Your task to perform on an android device: Open settings Image 0: 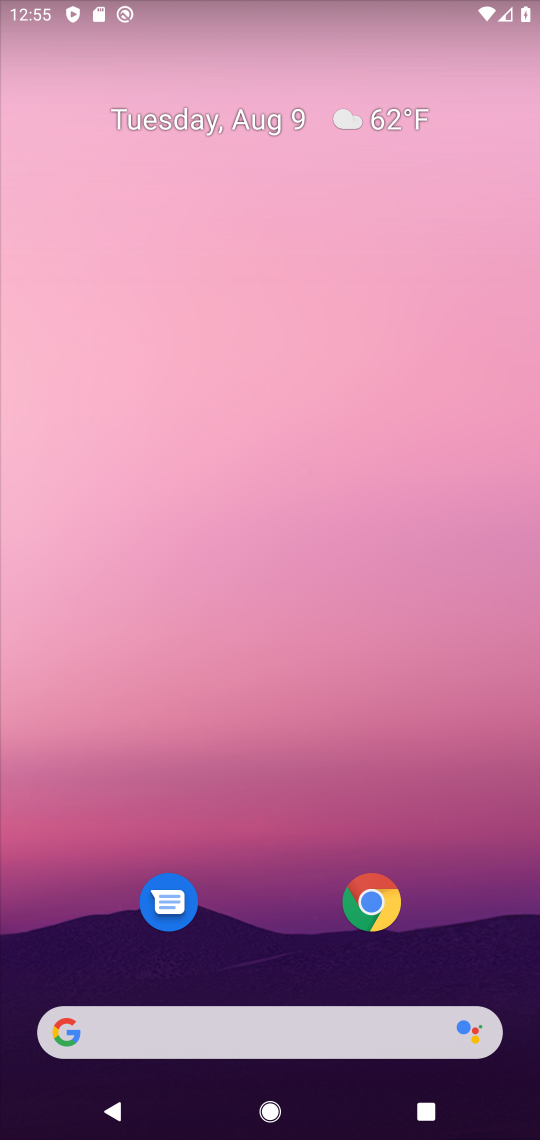
Step 0: drag from (293, 1017) to (320, 430)
Your task to perform on an android device: Open settings Image 1: 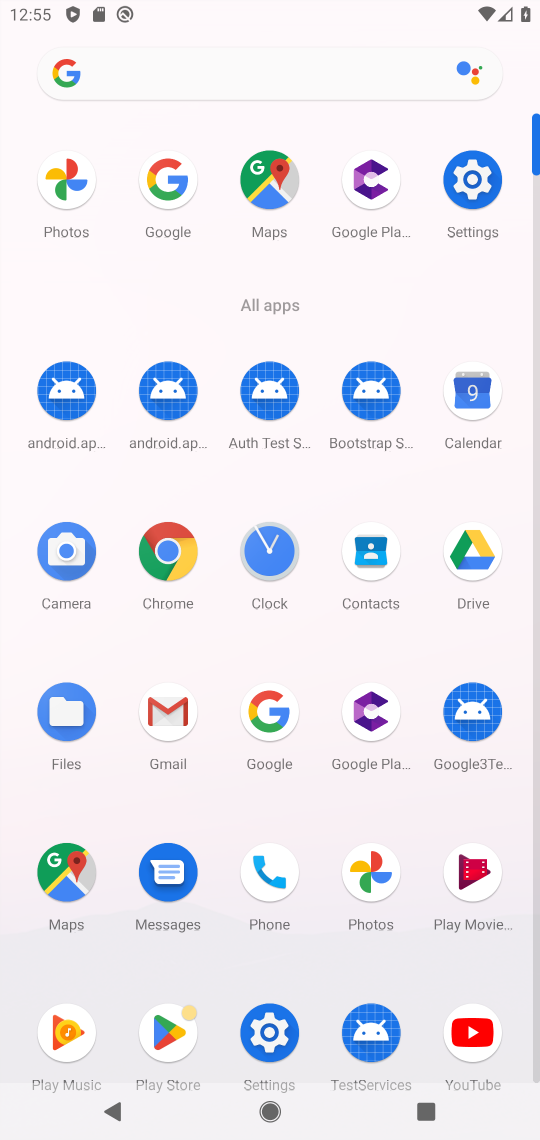
Step 1: click (273, 1038)
Your task to perform on an android device: Open settings Image 2: 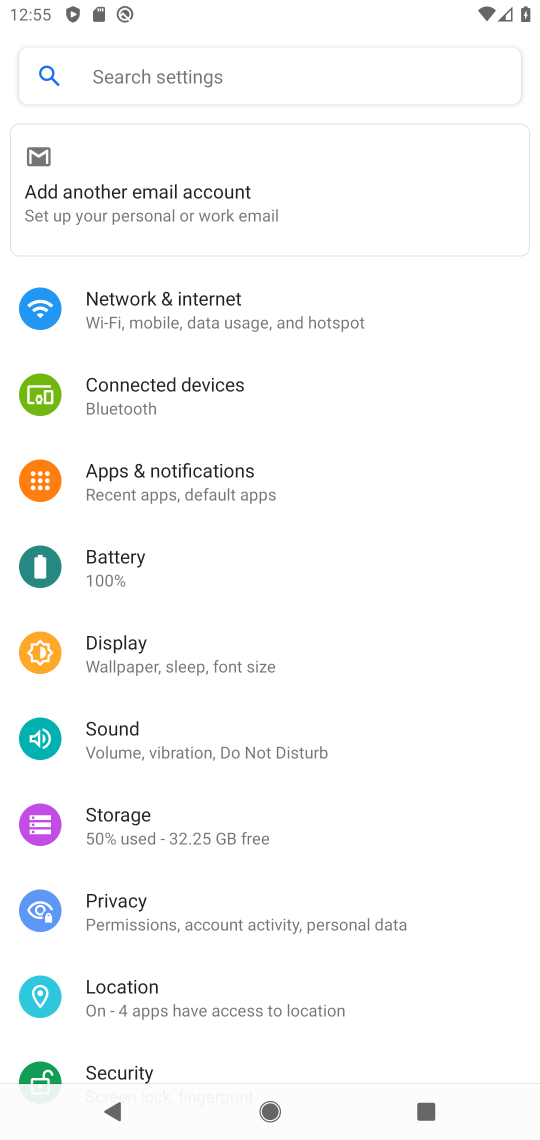
Step 2: task complete